Your task to perform on an android device: install app "Google Chrome" Image 0: 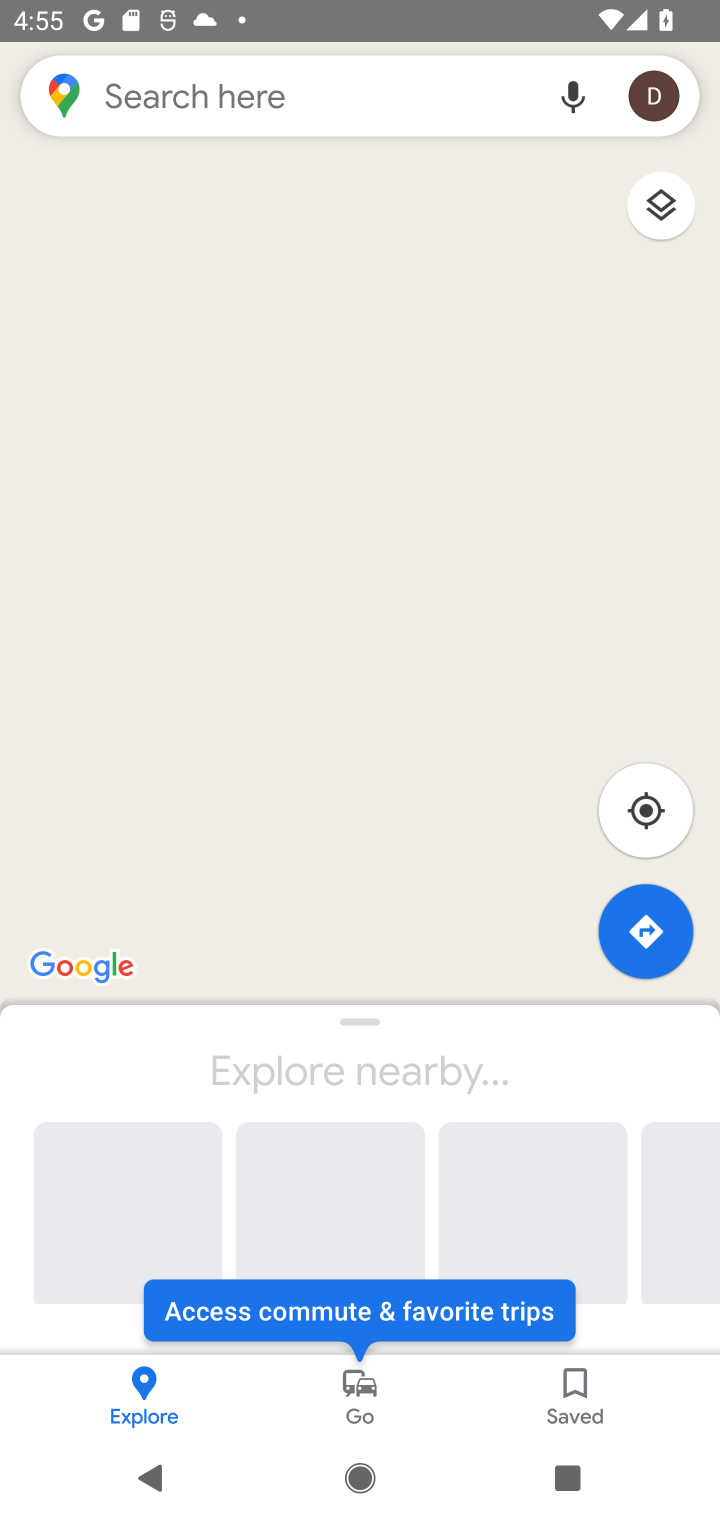
Step 0: press home button
Your task to perform on an android device: install app "Google Chrome" Image 1: 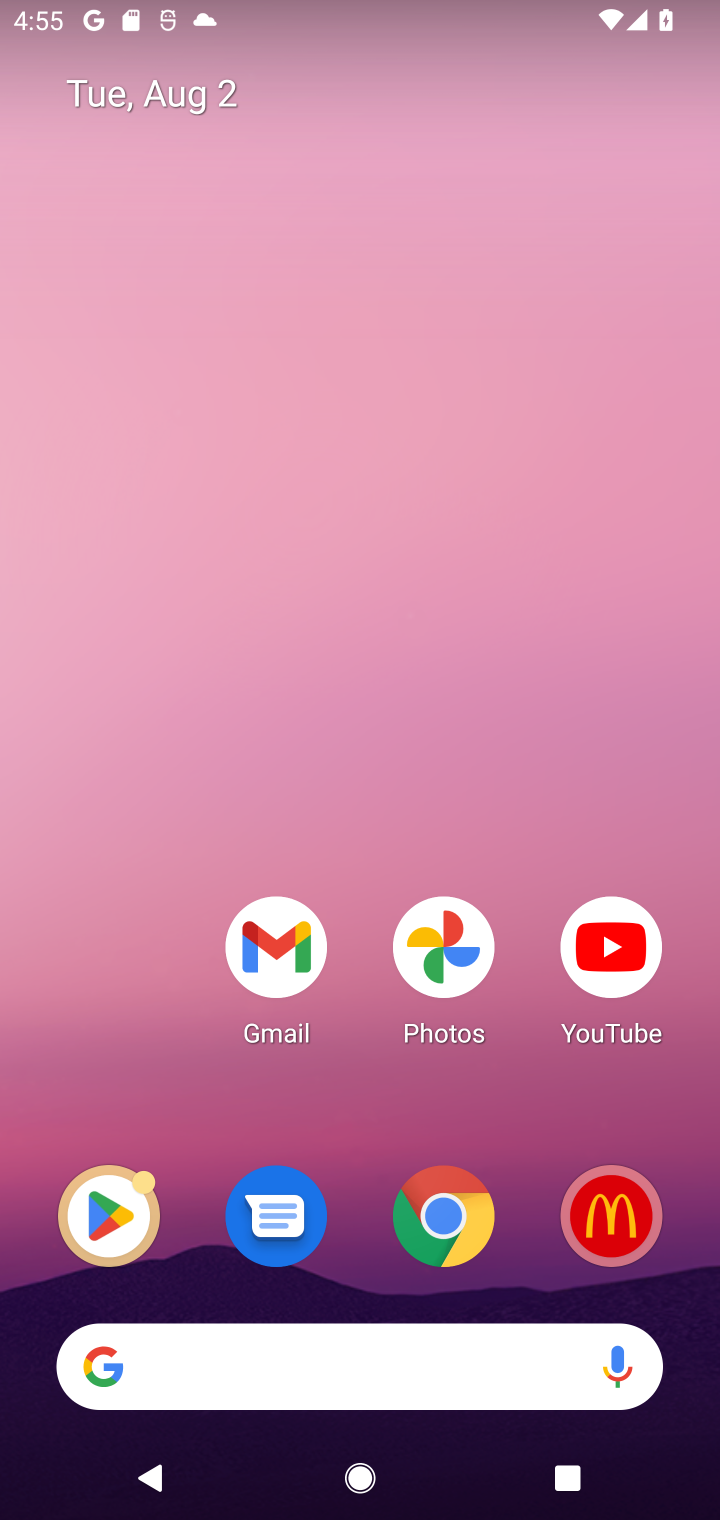
Step 1: click (455, 1197)
Your task to perform on an android device: install app "Google Chrome" Image 2: 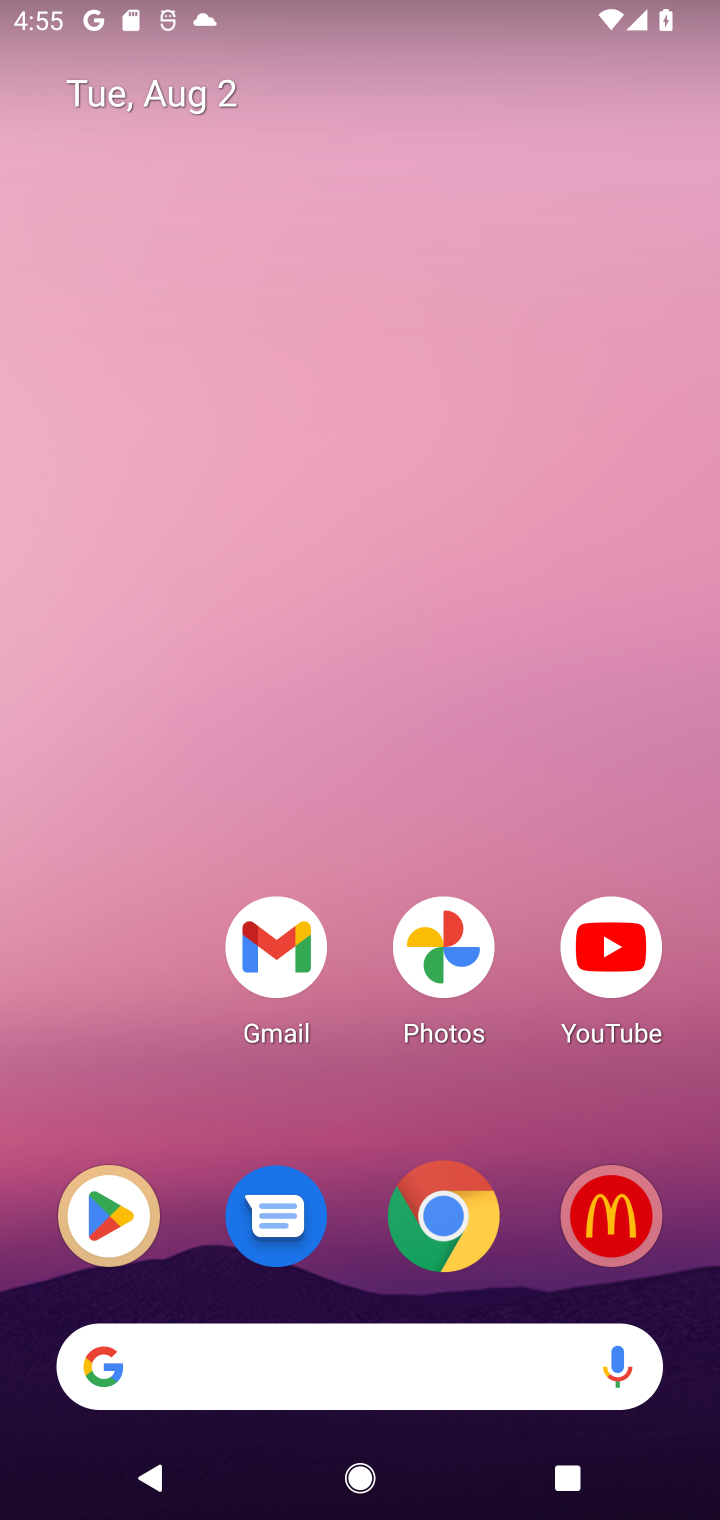
Step 2: task complete